Your task to perform on an android device: turn on javascript in the chrome app Image 0: 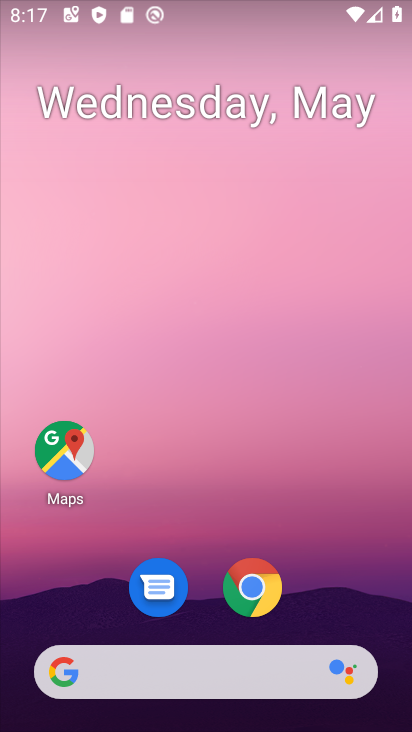
Step 0: click (254, 586)
Your task to perform on an android device: turn on javascript in the chrome app Image 1: 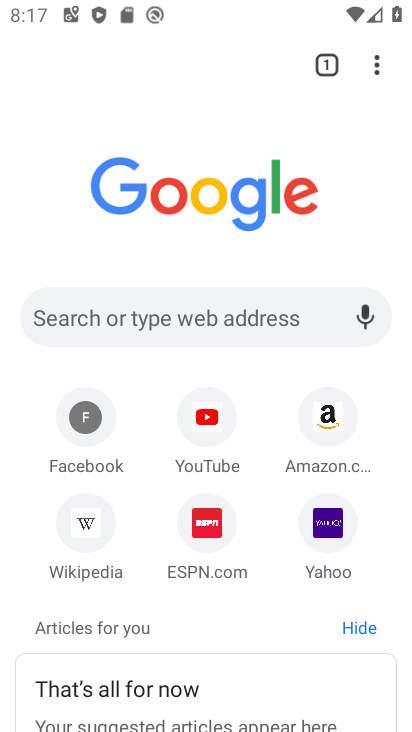
Step 1: click (374, 74)
Your task to perform on an android device: turn on javascript in the chrome app Image 2: 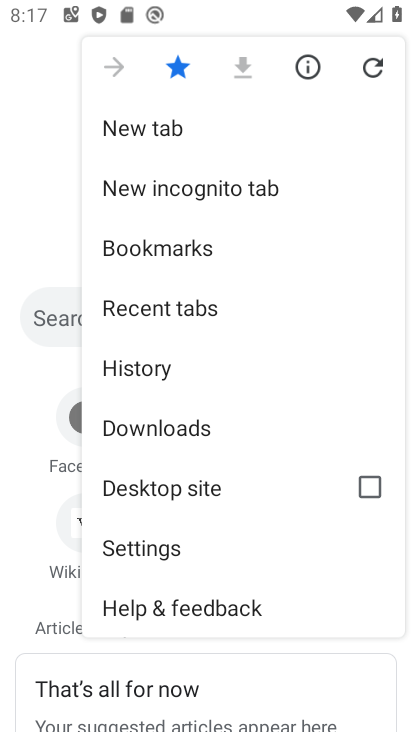
Step 2: click (156, 548)
Your task to perform on an android device: turn on javascript in the chrome app Image 3: 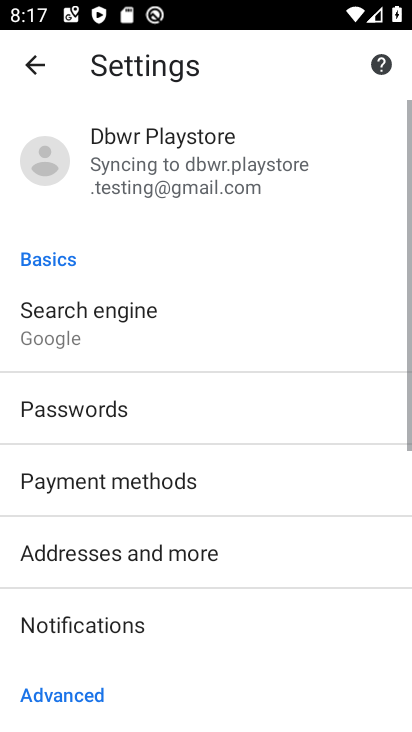
Step 3: drag from (189, 612) to (245, 154)
Your task to perform on an android device: turn on javascript in the chrome app Image 4: 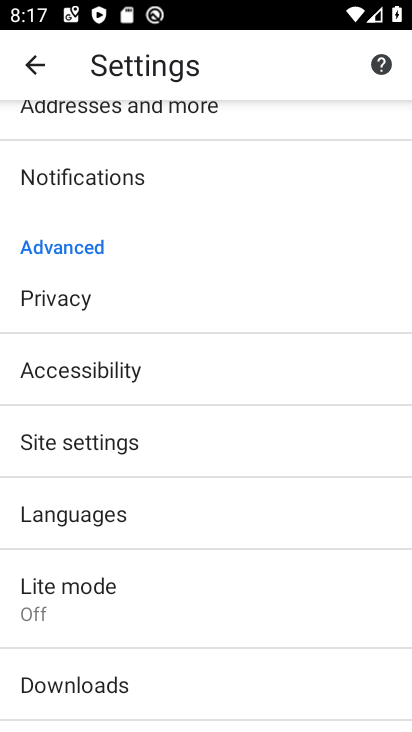
Step 4: click (100, 453)
Your task to perform on an android device: turn on javascript in the chrome app Image 5: 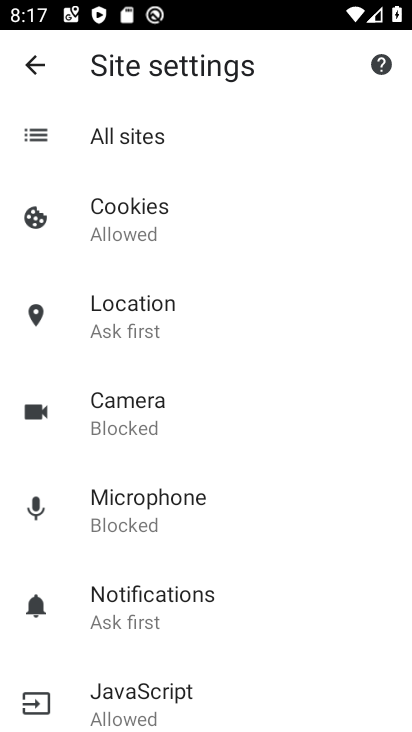
Step 5: drag from (247, 667) to (229, 261)
Your task to perform on an android device: turn on javascript in the chrome app Image 6: 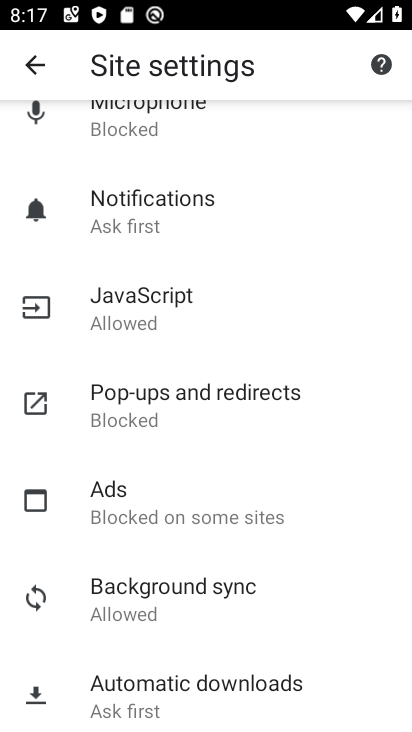
Step 6: click (110, 293)
Your task to perform on an android device: turn on javascript in the chrome app Image 7: 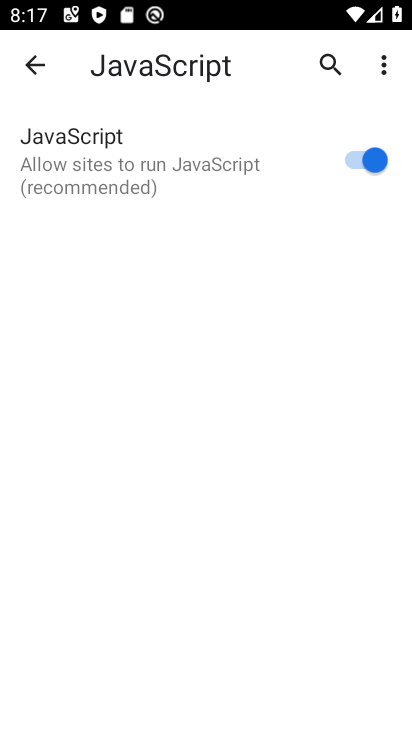
Step 7: task complete